Your task to perform on an android device: What's the weather going to be tomorrow? Image 0: 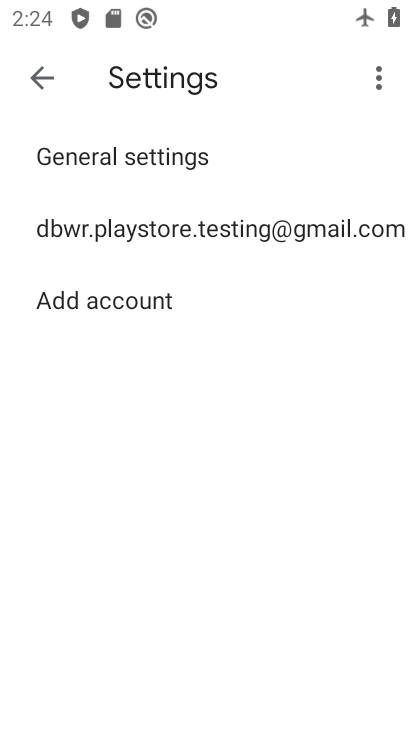
Step 0: press home button
Your task to perform on an android device: What's the weather going to be tomorrow? Image 1: 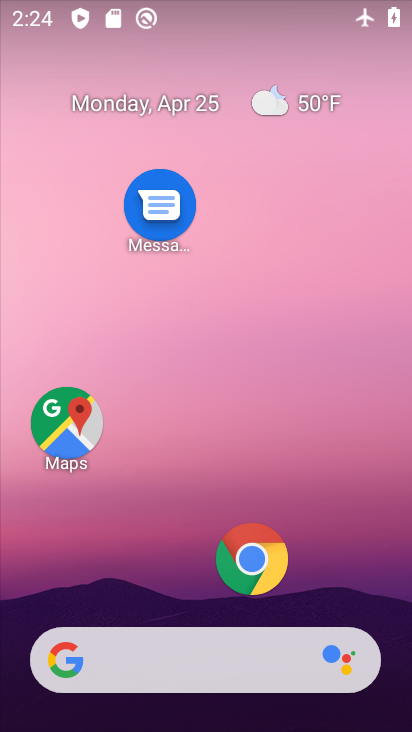
Step 1: click (169, 656)
Your task to perform on an android device: What's the weather going to be tomorrow? Image 2: 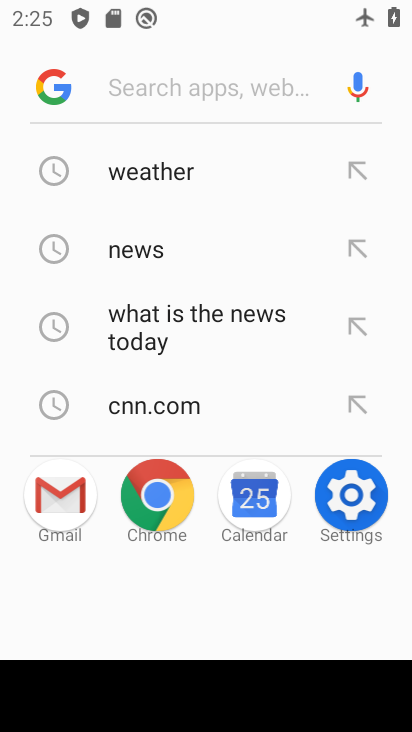
Step 2: click (160, 184)
Your task to perform on an android device: What's the weather going to be tomorrow? Image 3: 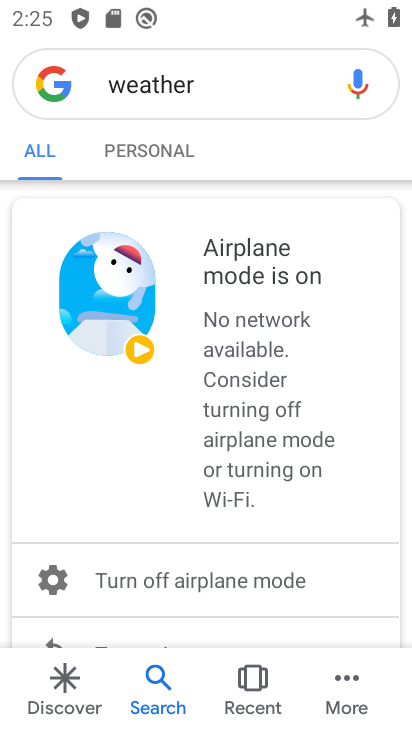
Step 3: task complete